Your task to perform on an android device: Add alienware aurora to the cart on target.com, then select checkout. Image 0: 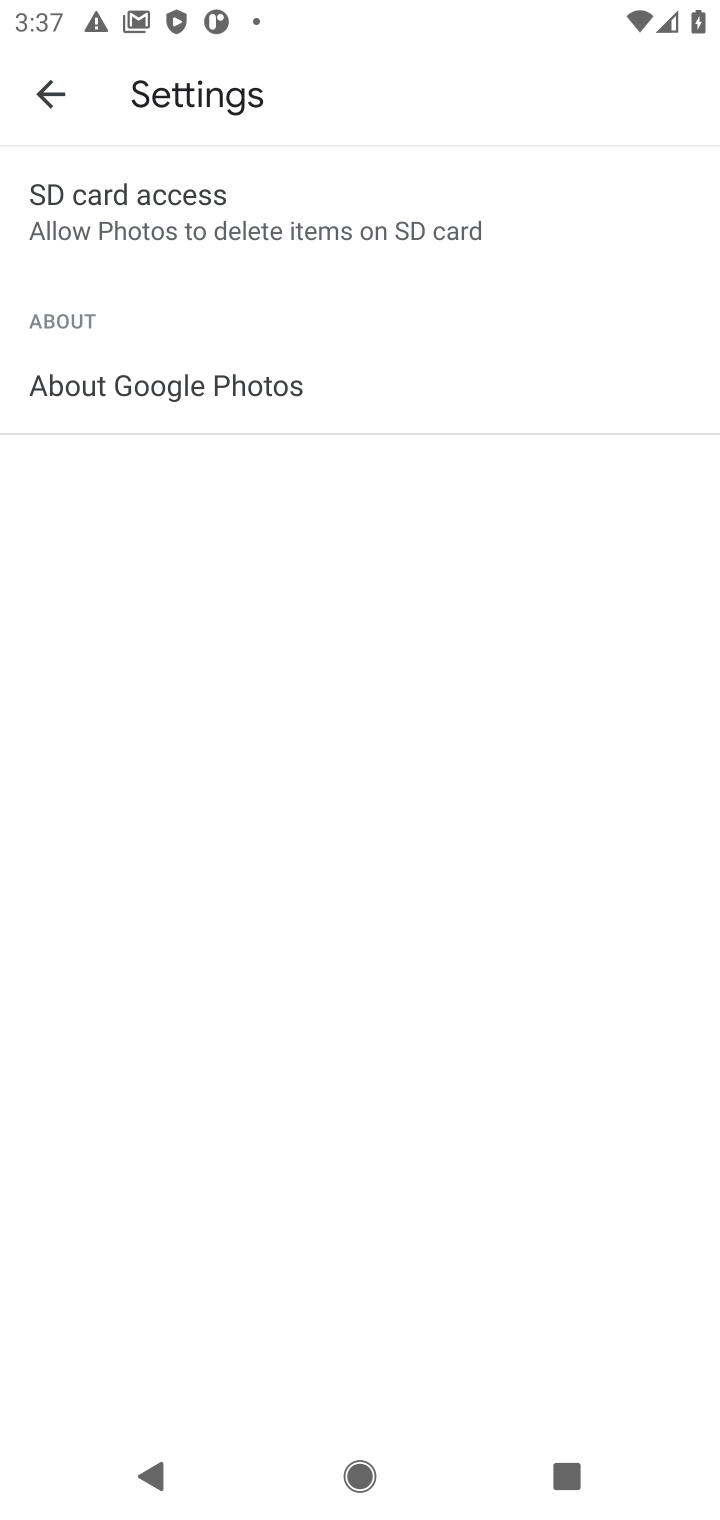
Step 0: press home button
Your task to perform on an android device: Add alienware aurora to the cart on target.com, then select checkout. Image 1: 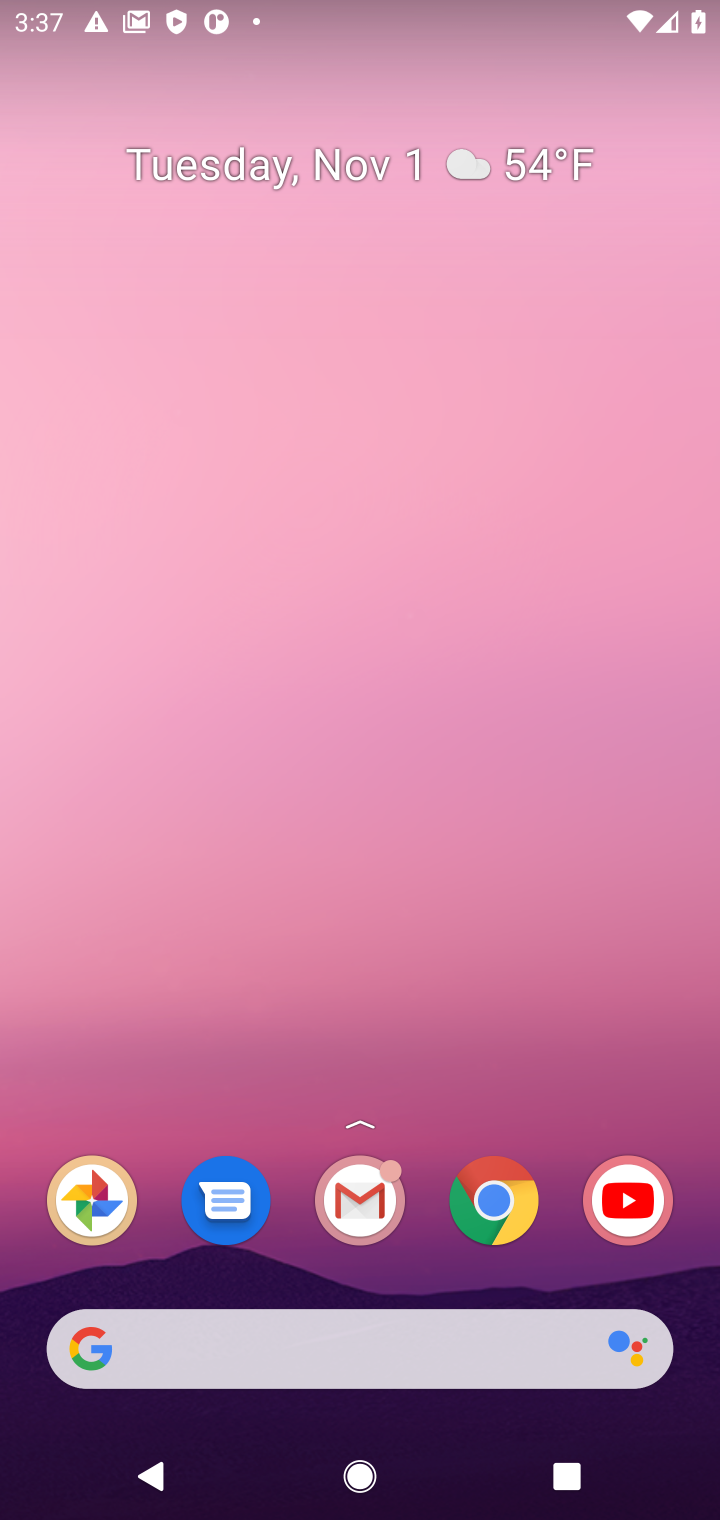
Step 1: click (89, 1333)
Your task to perform on an android device: Add alienware aurora to the cart on target.com, then select checkout. Image 2: 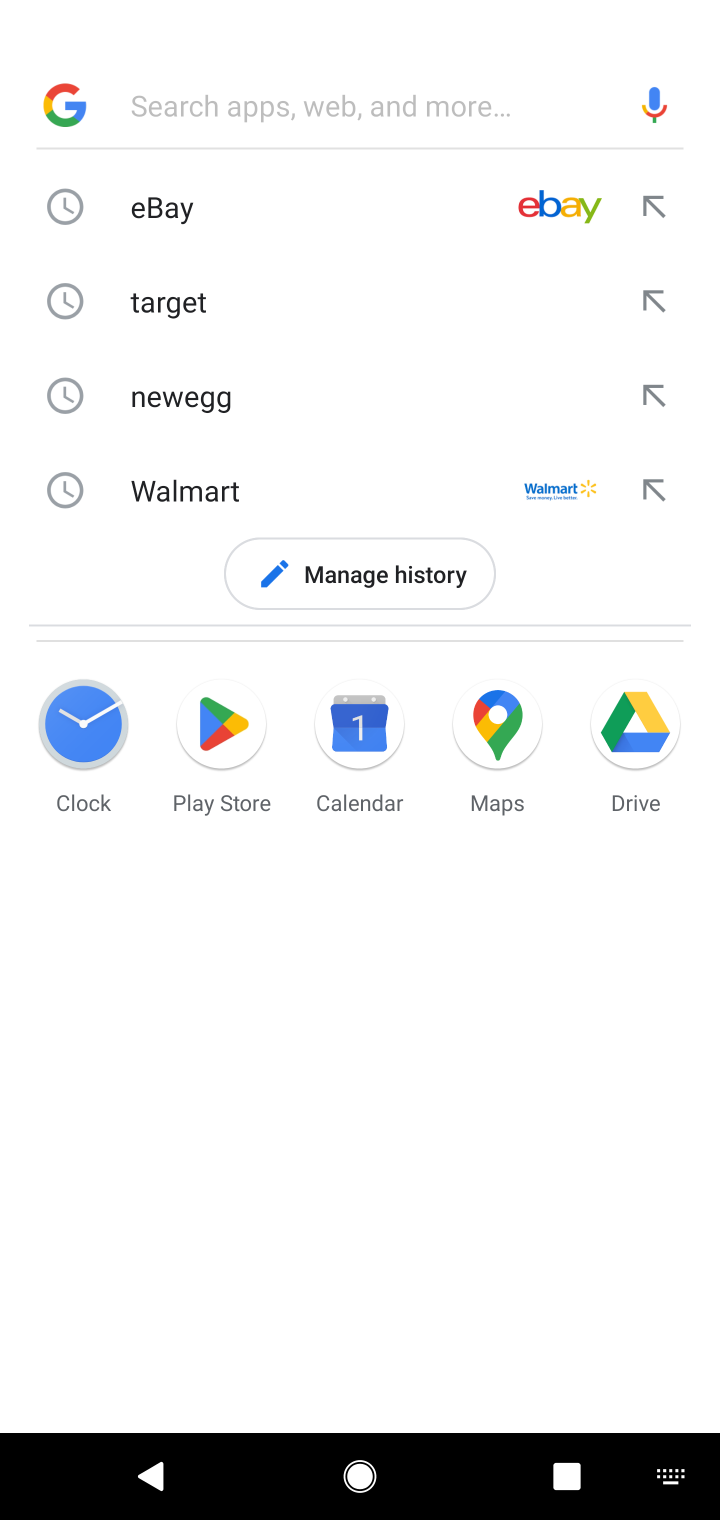
Step 2: click (202, 307)
Your task to perform on an android device: Add alienware aurora to the cart on target.com, then select checkout. Image 3: 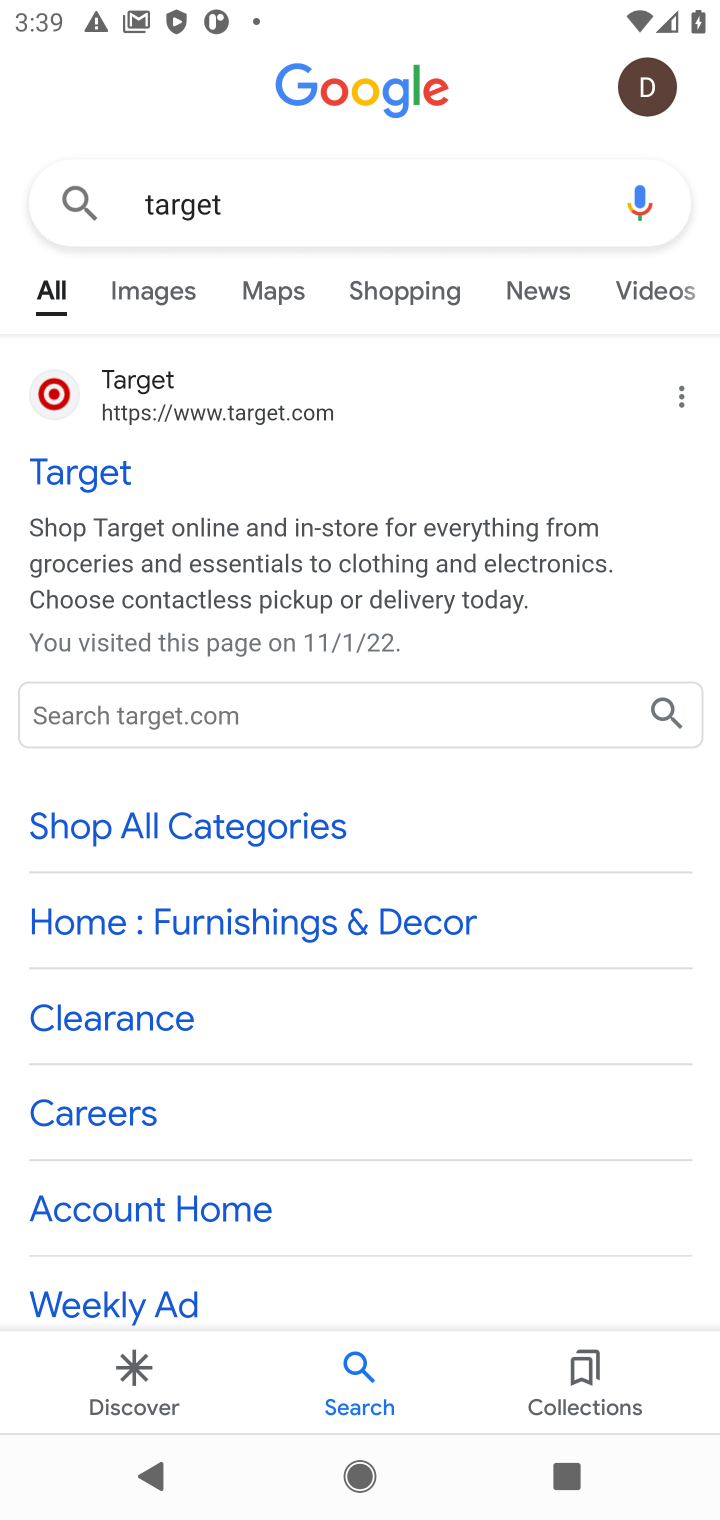
Step 3: click (84, 479)
Your task to perform on an android device: Add alienware aurora to the cart on target.com, then select checkout. Image 4: 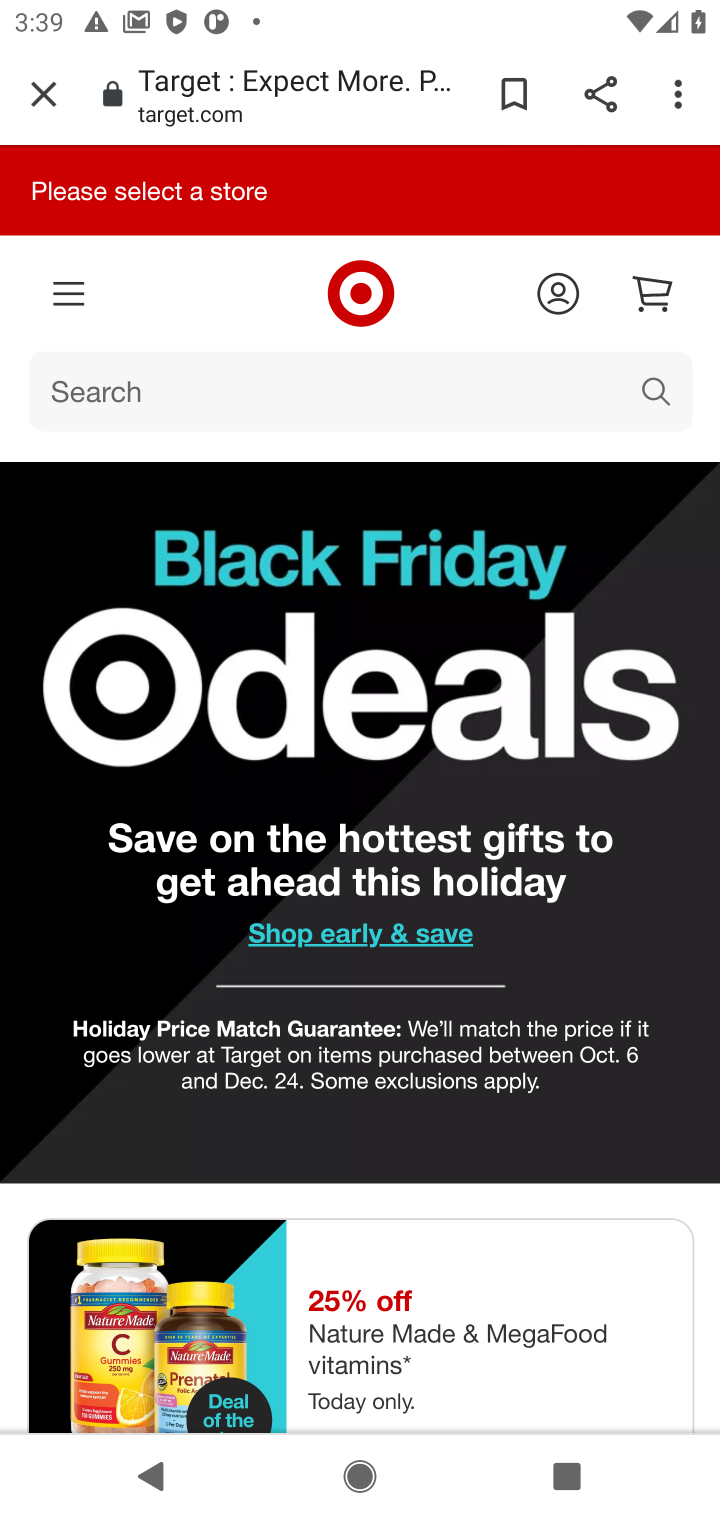
Step 4: click (342, 386)
Your task to perform on an android device: Add alienware aurora to the cart on target.com, then select checkout. Image 5: 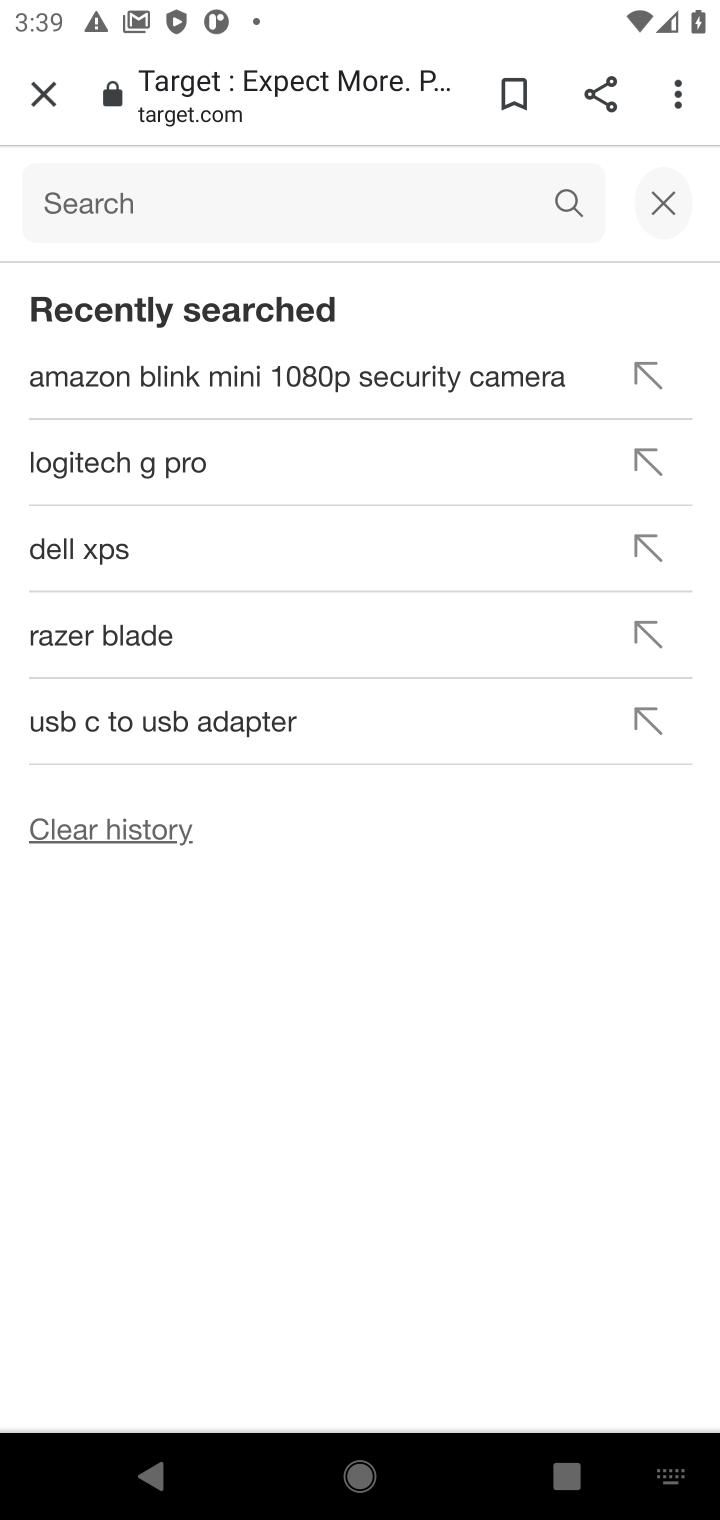
Step 5: type "alienware aurora"
Your task to perform on an android device: Add alienware aurora to the cart on target.com, then select checkout. Image 6: 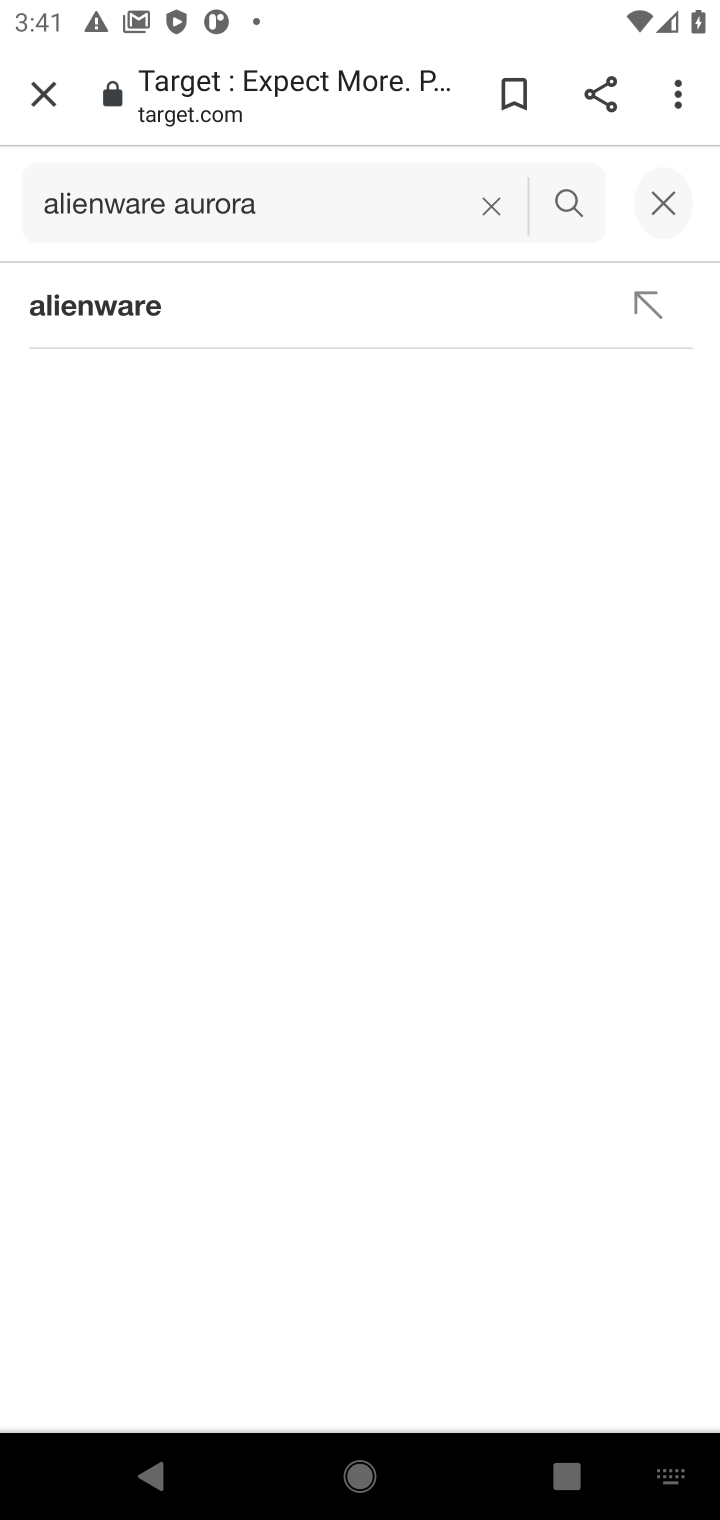
Step 6: click (157, 302)
Your task to perform on an android device: Add alienware aurora to the cart on target.com, then select checkout. Image 7: 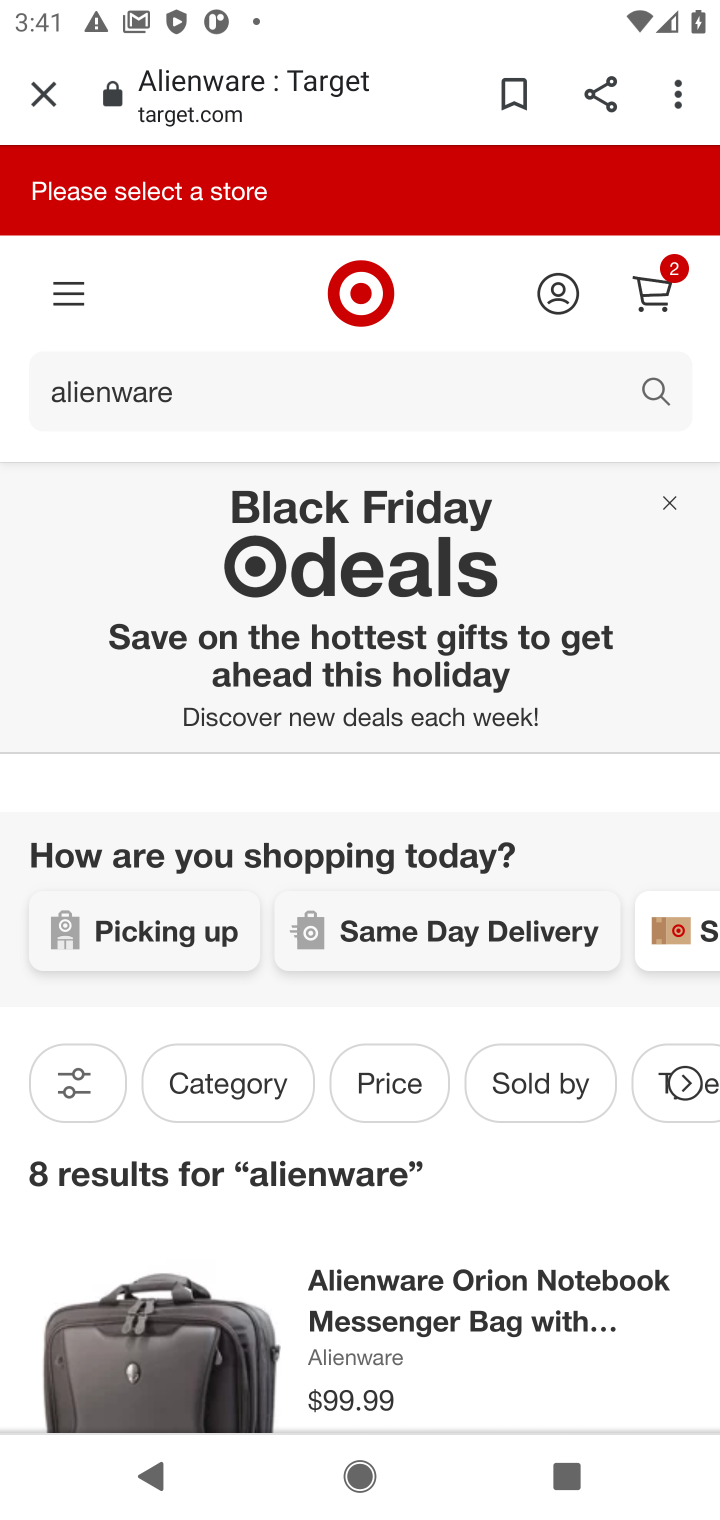
Step 7: drag from (379, 1356) to (301, 334)
Your task to perform on an android device: Add alienware aurora to the cart on target.com, then select checkout. Image 8: 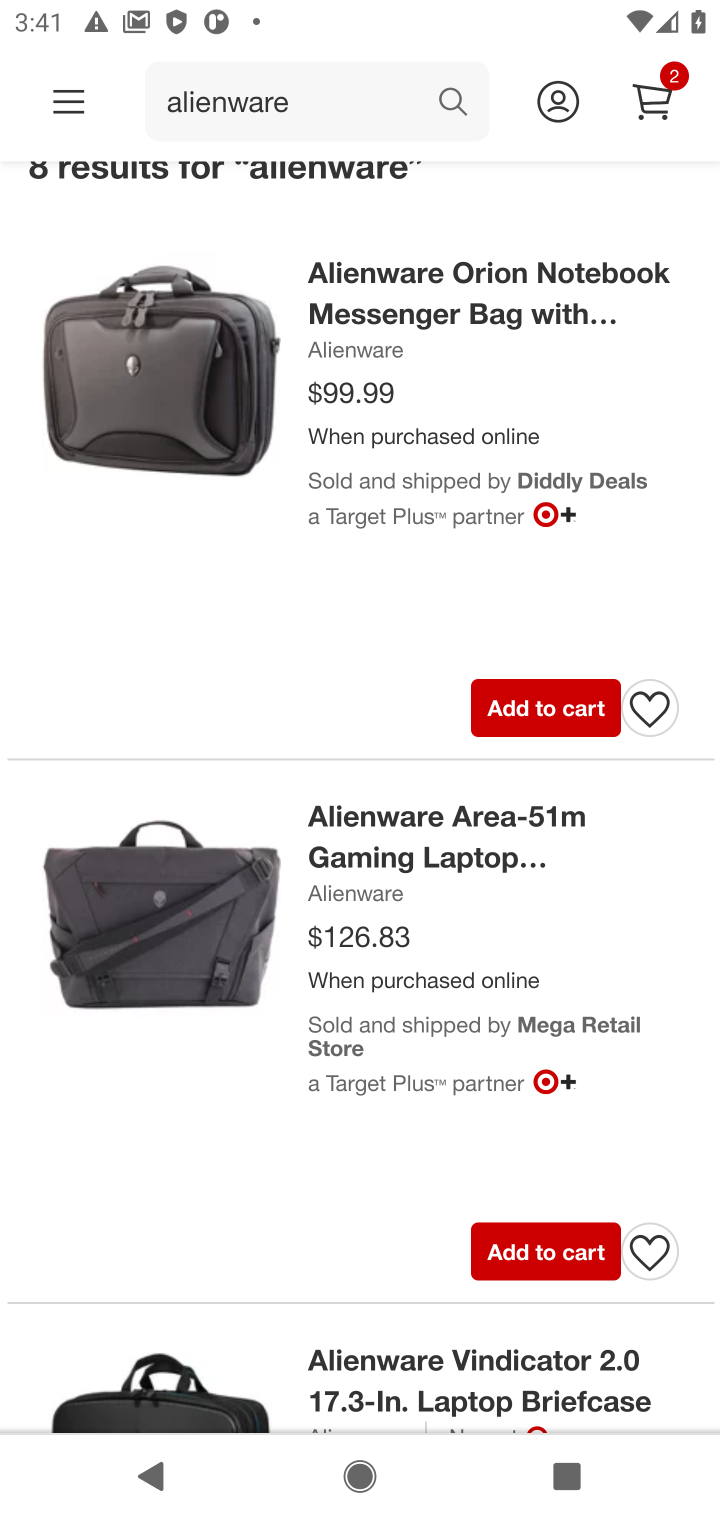
Step 8: click (531, 714)
Your task to perform on an android device: Add alienware aurora to the cart on target.com, then select checkout. Image 9: 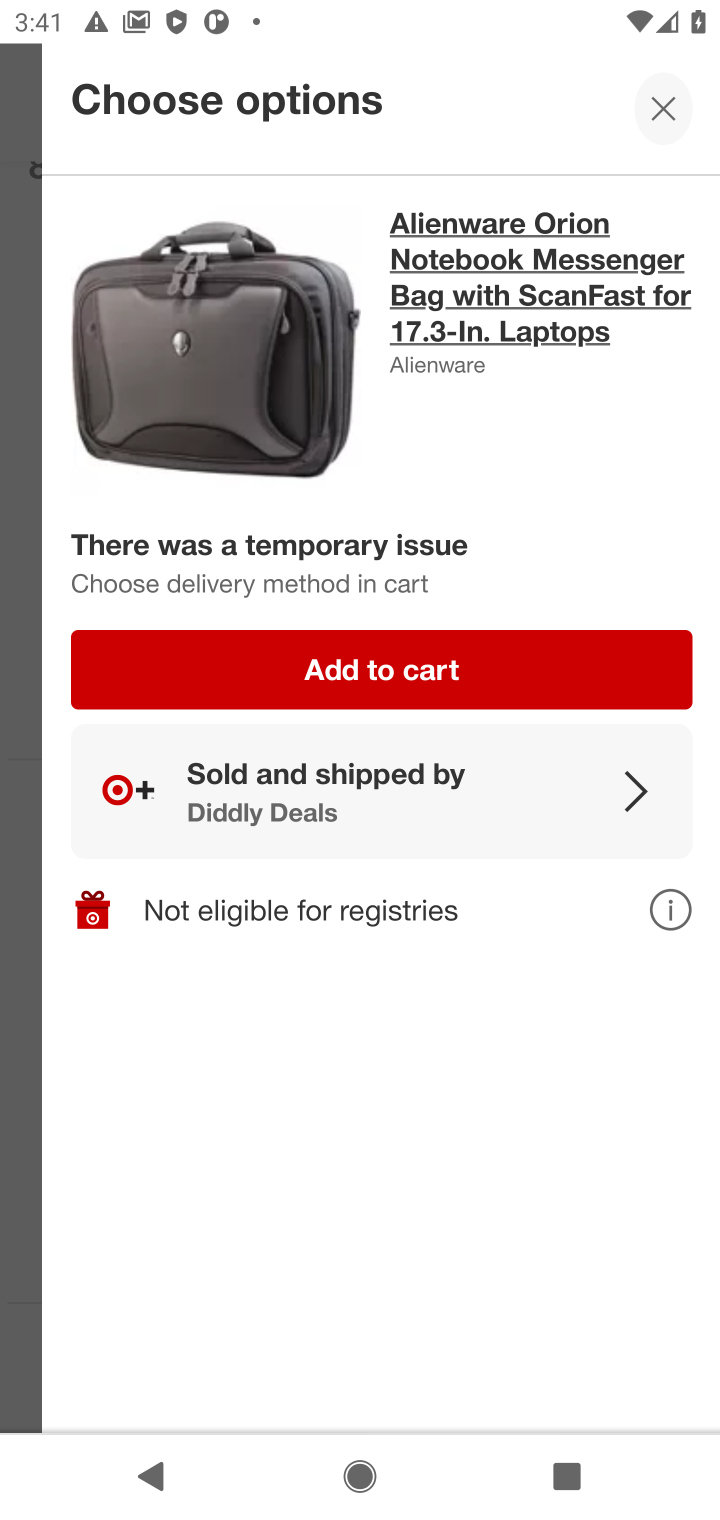
Step 9: click (404, 670)
Your task to perform on an android device: Add alienware aurora to the cart on target.com, then select checkout. Image 10: 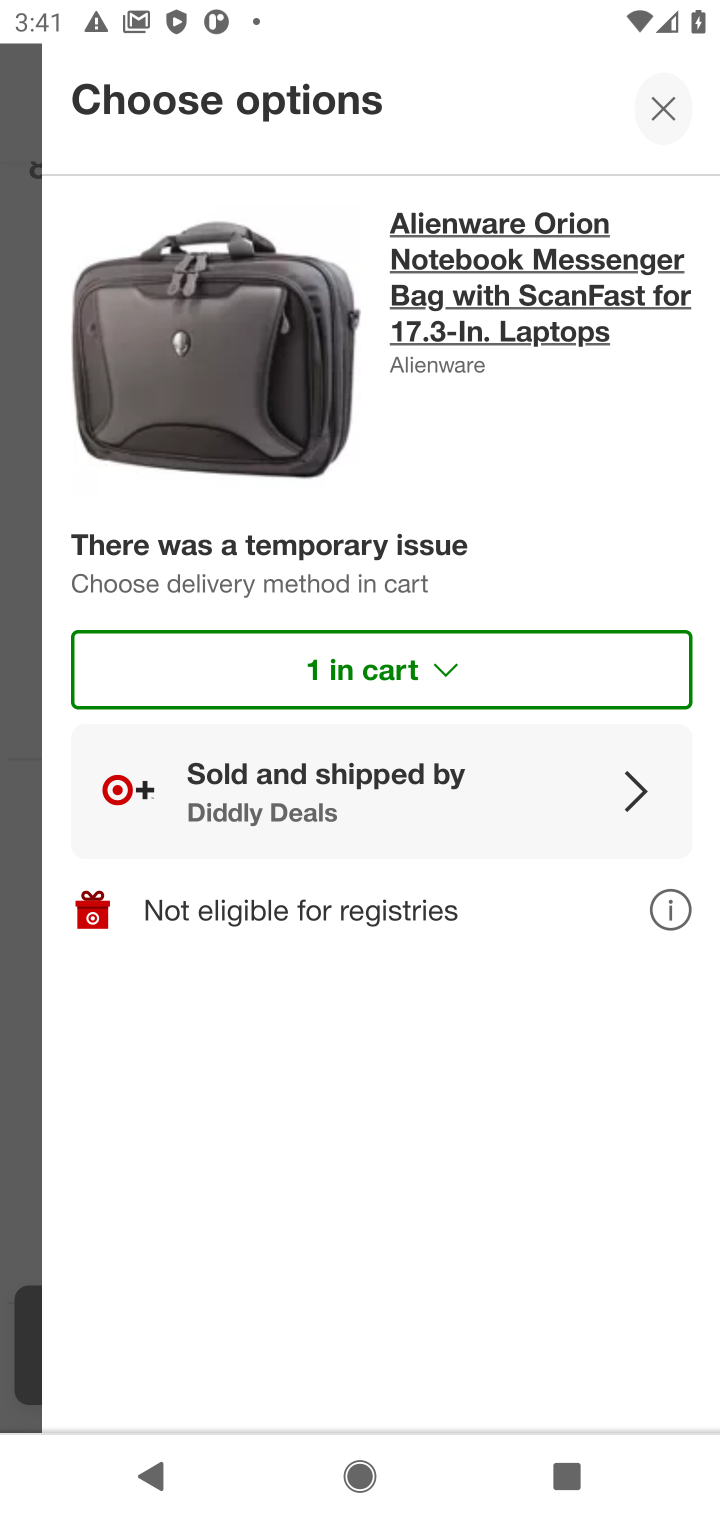
Step 10: click (659, 107)
Your task to perform on an android device: Add alienware aurora to the cart on target.com, then select checkout. Image 11: 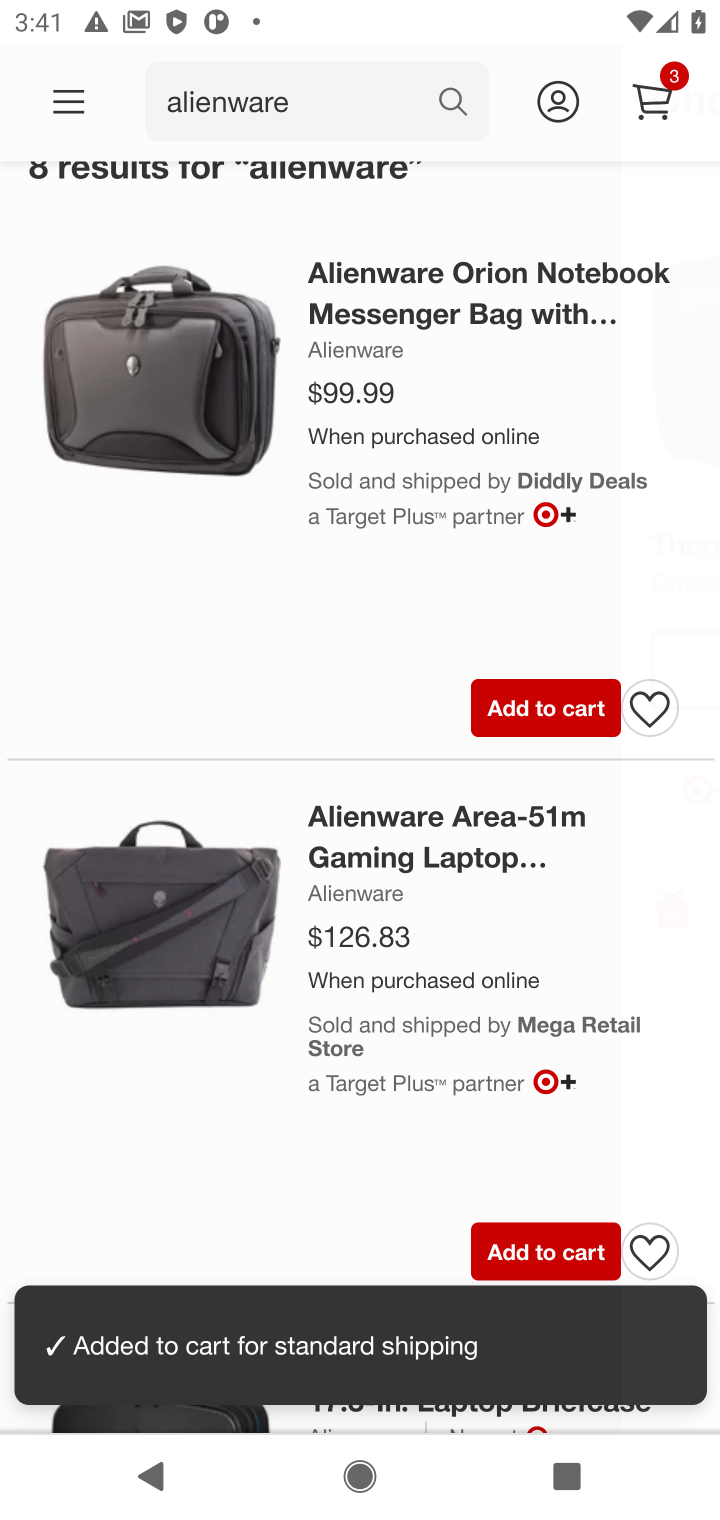
Step 11: task complete